Your task to perform on an android device: stop showing notifications on the lock screen Image 0: 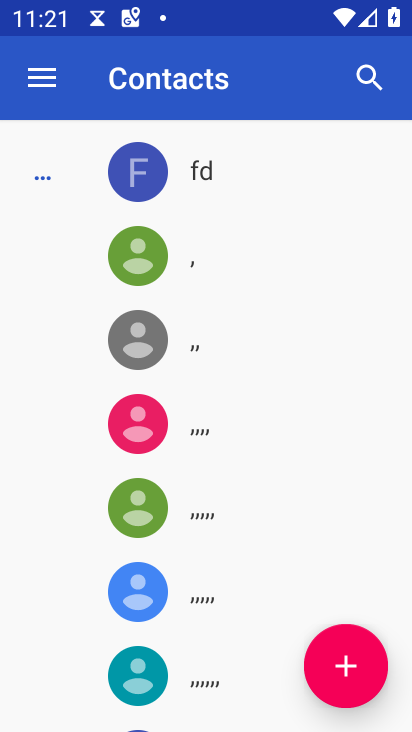
Step 0: press home button
Your task to perform on an android device: stop showing notifications on the lock screen Image 1: 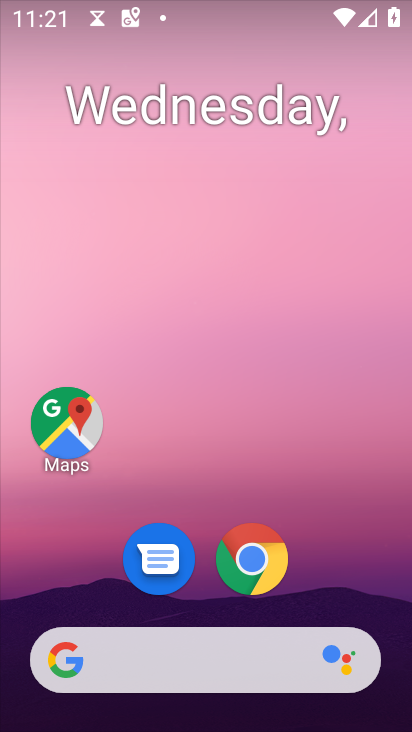
Step 1: drag from (393, 608) to (308, 301)
Your task to perform on an android device: stop showing notifications on the lock screen Image 2: 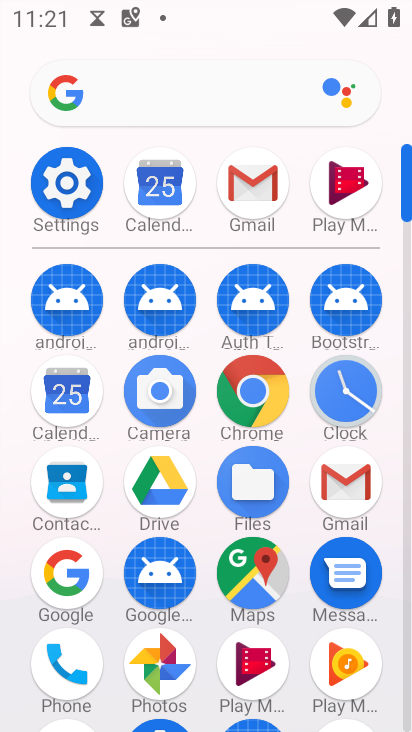
Step 2: click (69, 181)
Your task to perform on an android device: stop showing notifications on the lock screen Image 3: 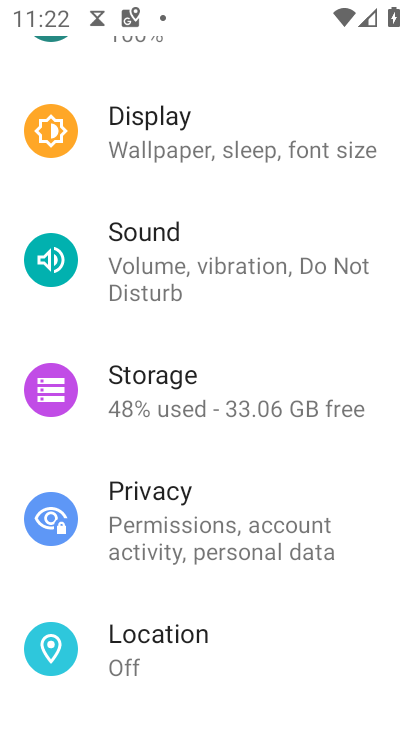
Step 3: drag from (225, 229) to (229, 509)
Your task to perform on an android device: stop showing notifications on the lock screen Image 4: 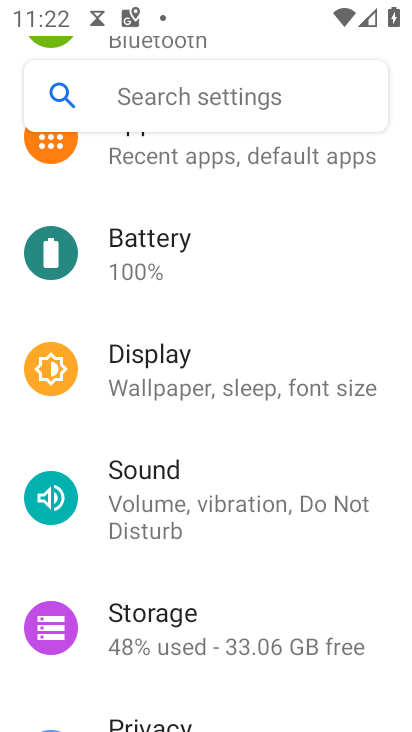
Step 4: drag from (232, 211) to (246, 457)
Your task to perform on an android device: stop showing notifications on the lock screen Image 5: 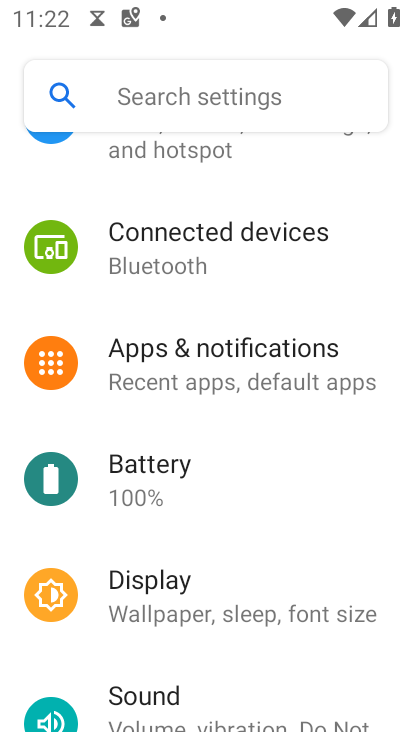
Step 5: click (242, 350)
Your task to perform on an android device: stop showing notifications on the lock screen Image 6: 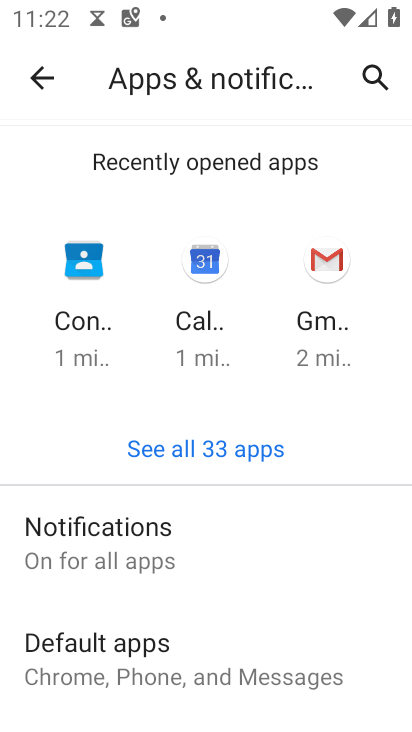
Step 6: click (253, 523)
Your task to perform on an android device: stop showing notifications on the lock screen Image 7: 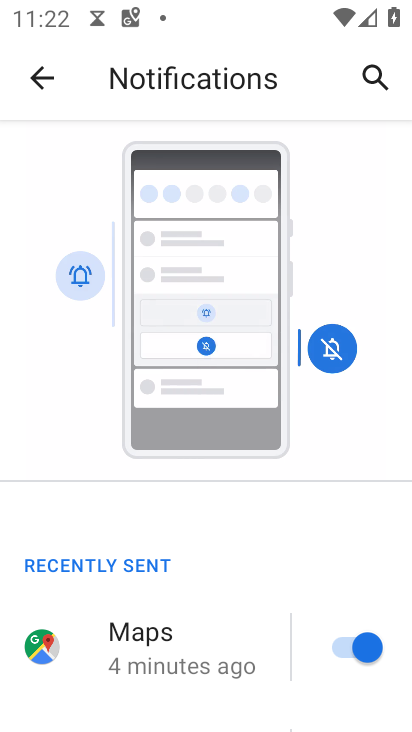
Step 7: drag from (262, 615) to (234, 309)
Your task to perform on an android device: stop showing notifications on the lock screen Image 8: 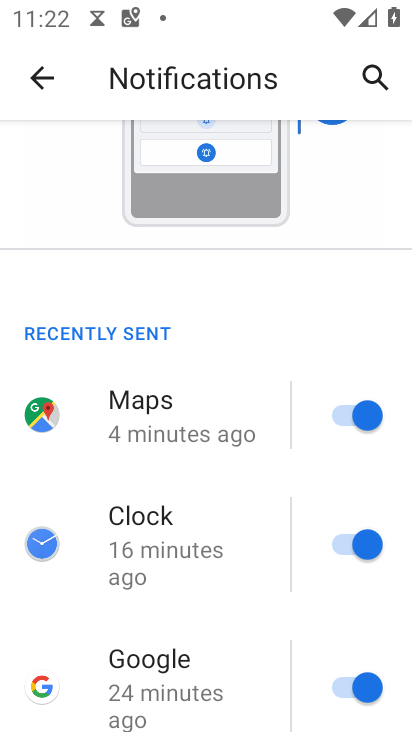
Step 8: drag from (267, 586) to (236, 177)
Your task to perform on an android device: stop showing notifications on the lock screen Image 9: 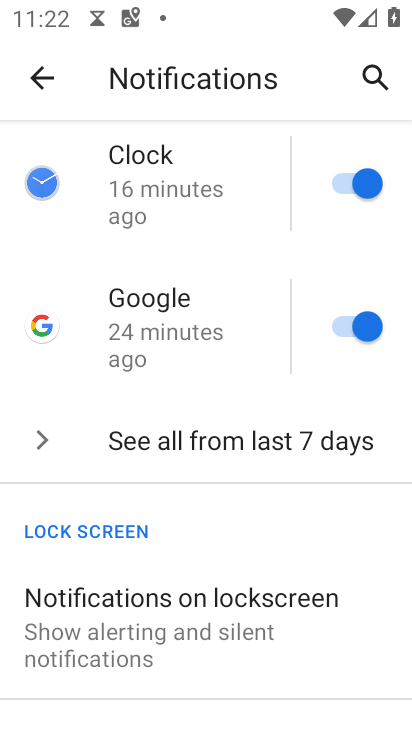
Step 9: drag from (251, 587) to (190, 199)
Your task to perform on an android device: stop showing notifications on the lock screen Image 10: 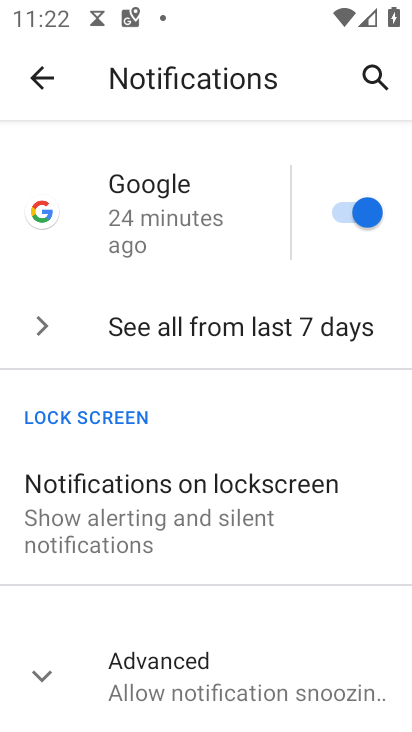
Step 10: click (212, 527)
Your task to perform on an android device: stop showing notifications on the lock screen Image 11: 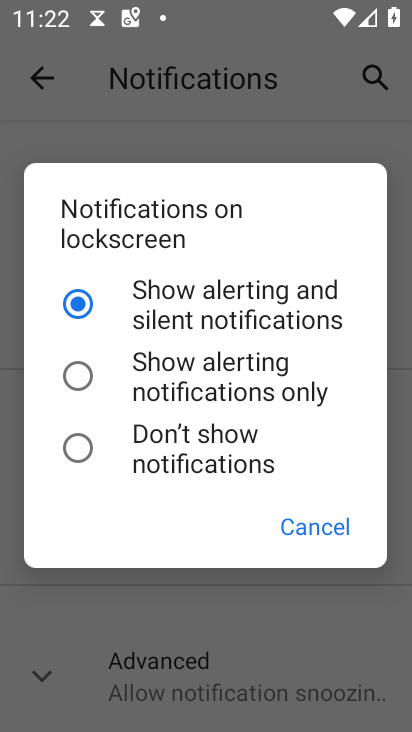
Step 11: click (212, 462)
Your task to perform on an android device: stop showing notifications on the lock screen Image 12: 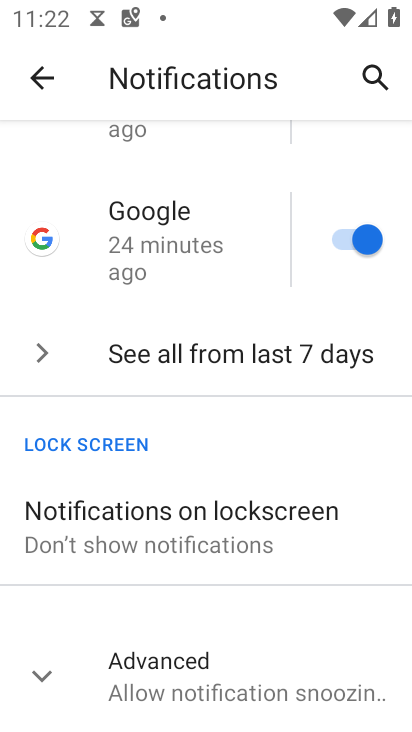
Step 12: task complete